Your task to perform on an android device: delete a single message in the gmail app Image 0: 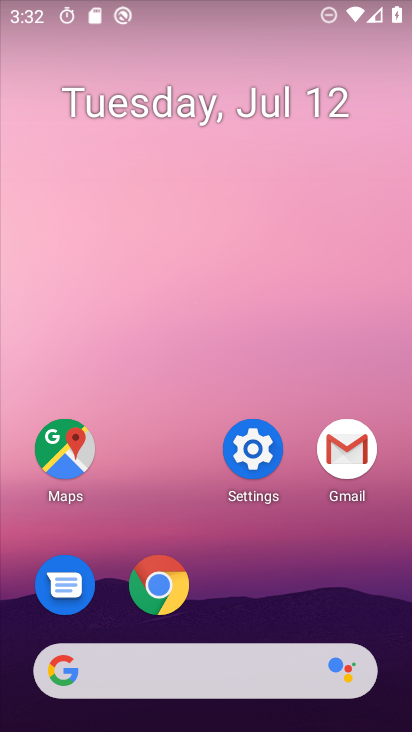
Step 0: click (335, 459)
Your task to perform on an android device: delete a single message in the gmail app Image 1: 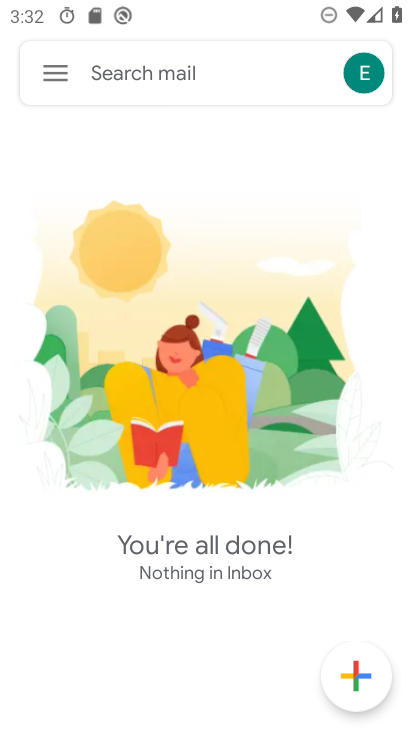
Step 1: task complete